Your task to perform on an android device: Search for Mexican restaurants on Maps Image 0: 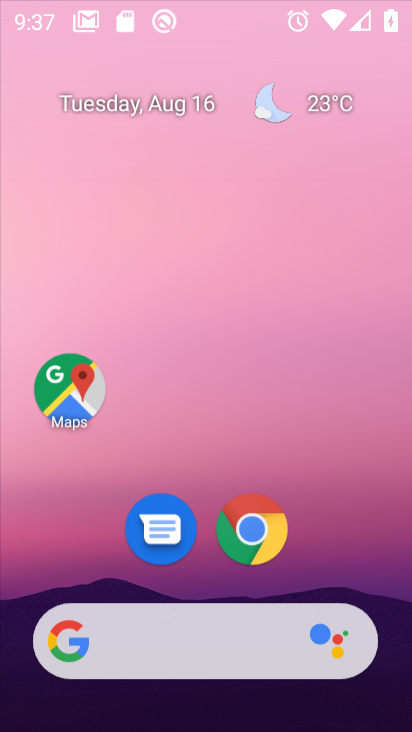
Step 0: drag from (341, 522) to (280, 153)
Your task to perform on an android device: Search for Mexican restaurants on Maps Image 1: 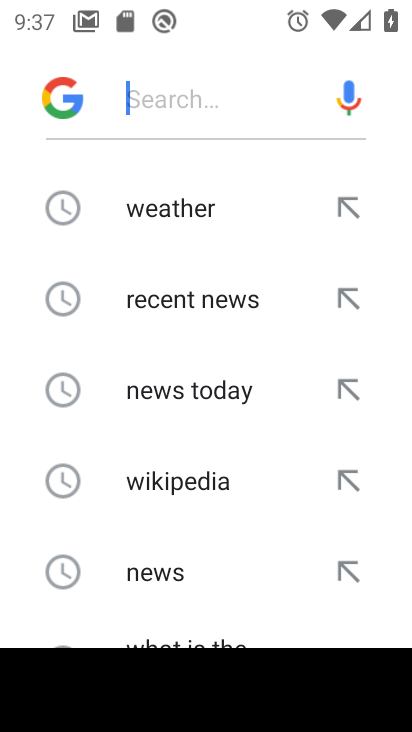
Step 1: press home button
Your task to perform on an android device: Search for Mexican restaurants on Maps Image 2: 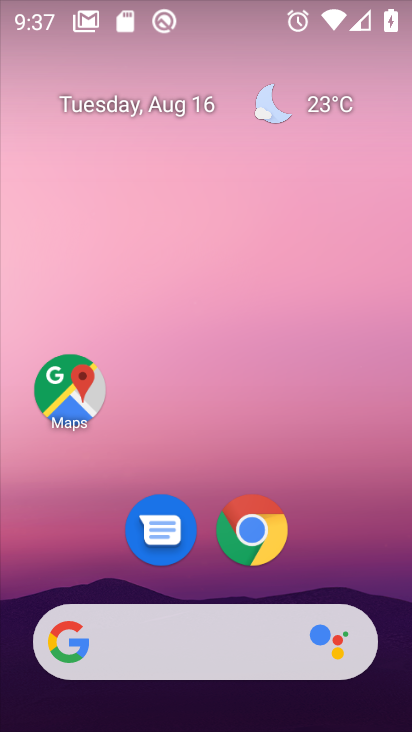
Step 2: drag from (355, 535) to (320, 227)
Your task to perform on an android device: Search for Mexican restaurants on Maps Image 3: 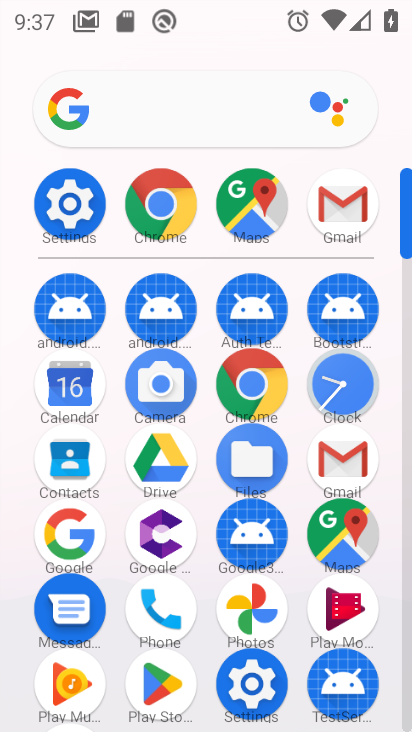
Step 3: click (345, 540)
Your task to perform on an android device: Search for Mexican restaurants on Maps Image 4: 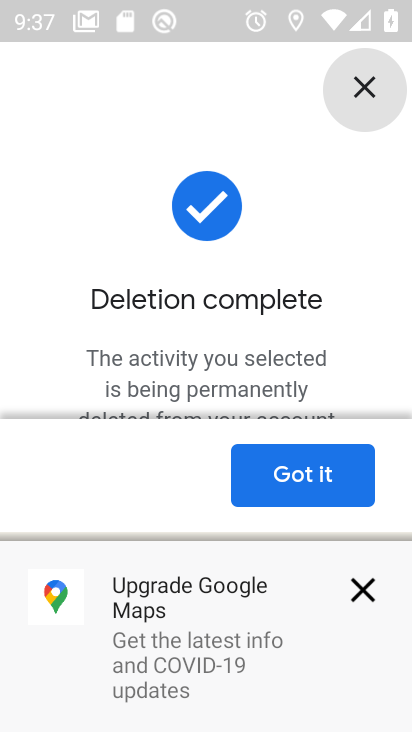
Step 4: click (383, 69)
Your task to perform on an android device: Search for Mexican restaurants on Maps Image 5: 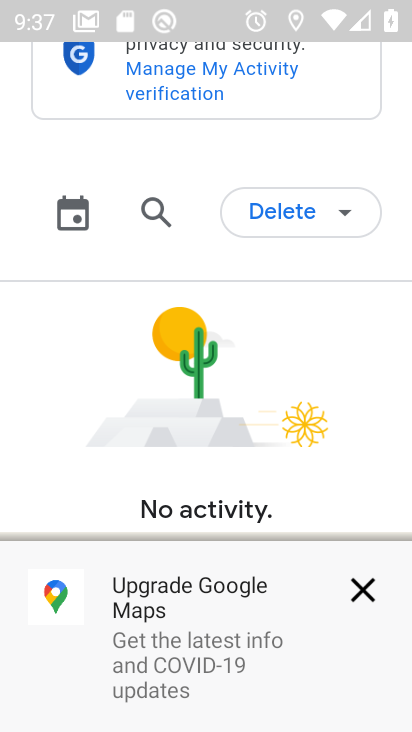
Step 5: press back button
Your task to perform on an android device: Search for Mexican restaurants on Maps Image 6: 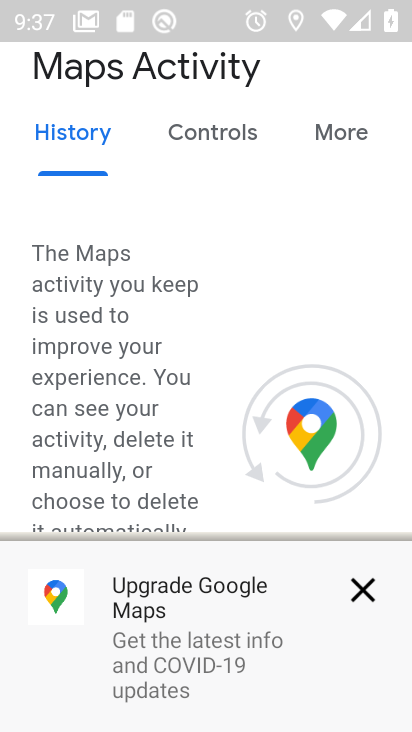
Step 6: press back button
Your task to perform on an android device: Search for Mexican restaurants on Maps Image 7: 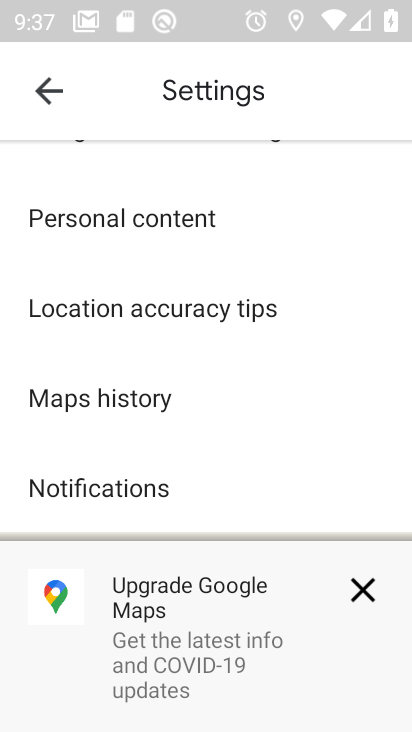
Step 7: press back button
Your task to perform on an android device: Search for Mexican restaurants on Maps Image 8: 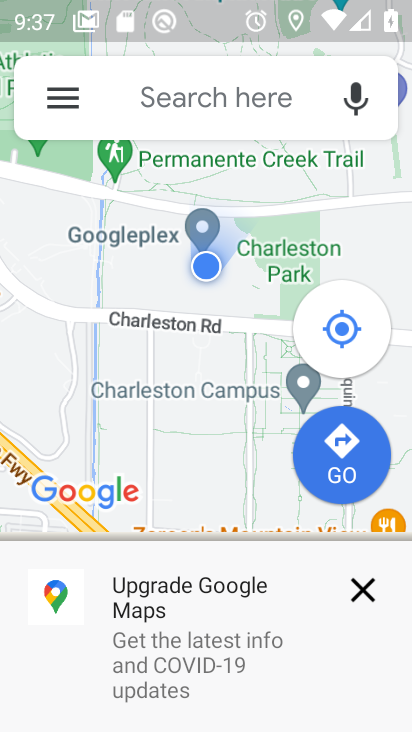
Step 8: click (286, 105)
Your task to perform on an android device: Search for Mexican restaurants on Maps Image 9: 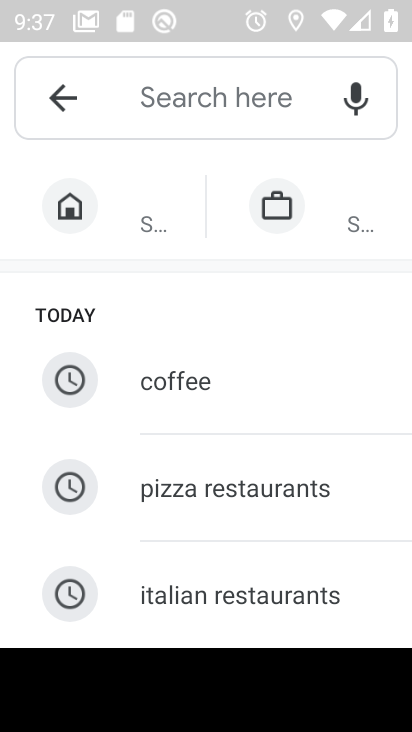
Step 9: type "Mexican restaurants"
Your task to perform on an android device: Search for Mexican restaurants on Maps Image 10: 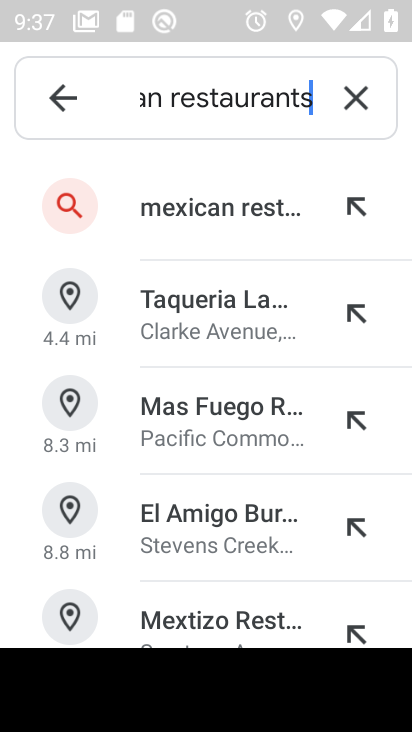
Step 10: press enter
Your task to perform on an android device: Search for Mexican restaurants on Maps Image 11: 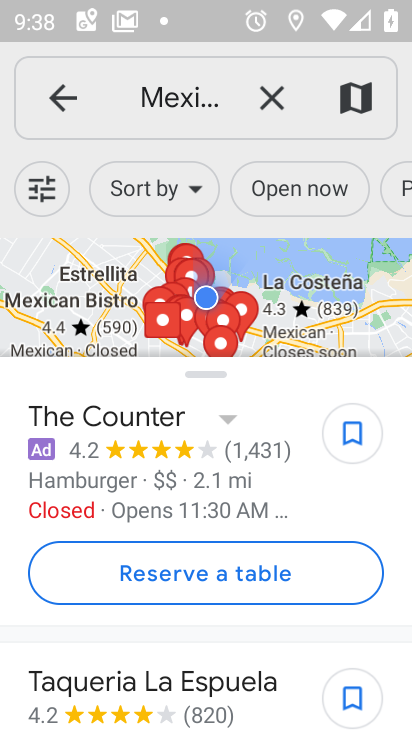
Step 11: task complete